Your task to perform on an android device: Turn off the flashlight Image 0: 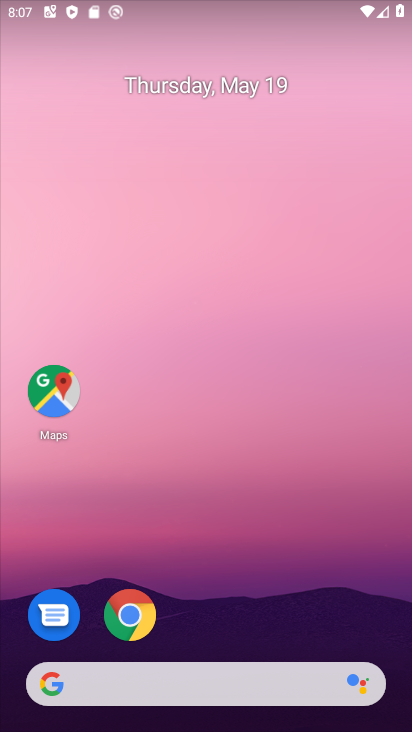
Step 0: drag from (212, 584) to (199, 1)
Your task to perform on an android device: Turn off the flashlight Image 1: 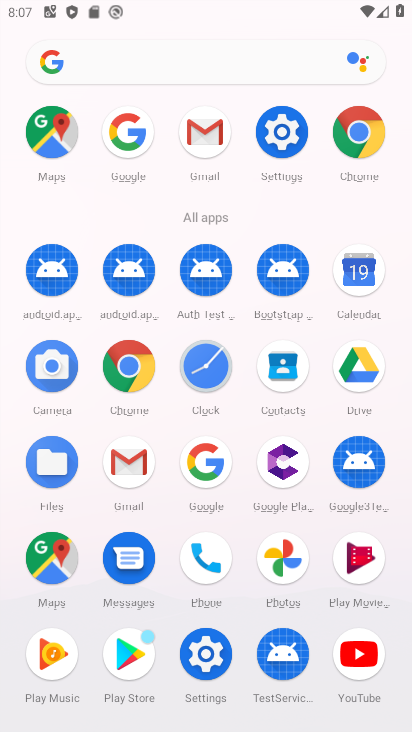
Step 1: click (284, 126)
Your task to perform on an android device: Turn off the flashlight Image 2: 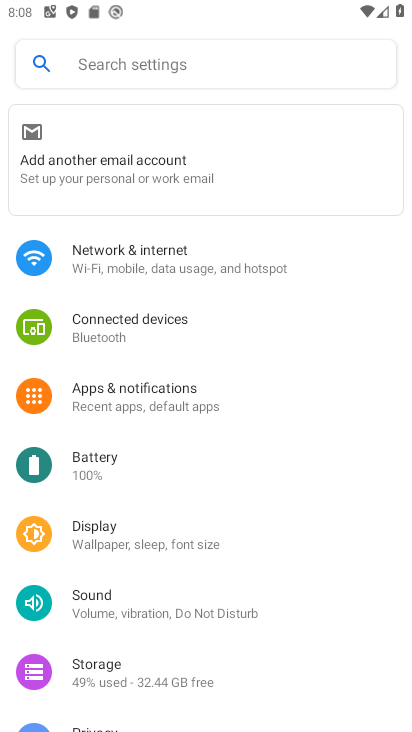
Step 2: click (155, 60)
Your task to perform on an android device: Turn off the flashlight Image 3: 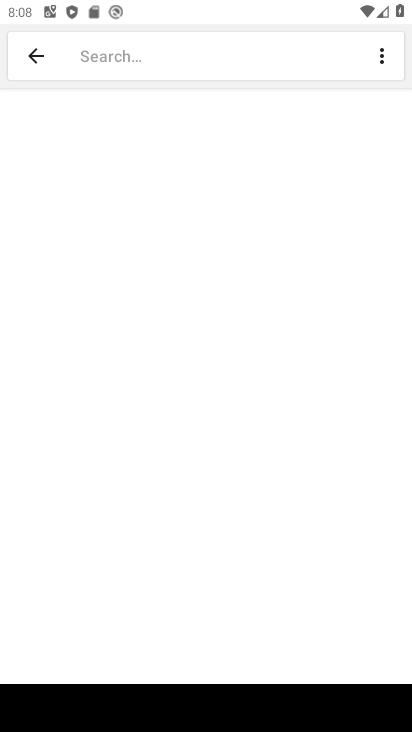
Step 3: type "flash"
Your task to perform on an android device: Turn off the flashlight Image 4: 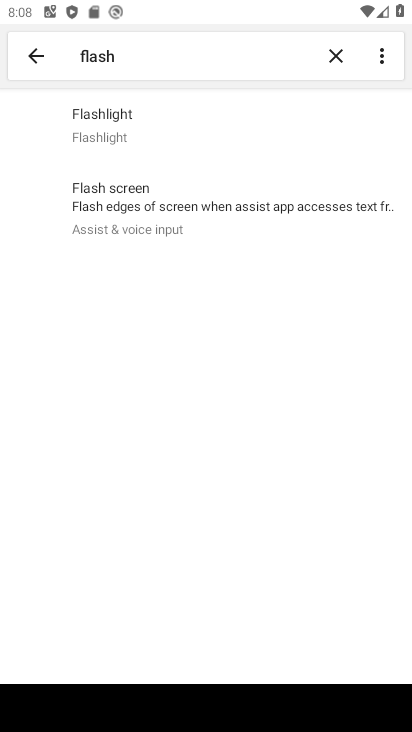
Step 4: task complete